Your task to perform on an android device: What's the weather going to be tomorrow? Image 0: 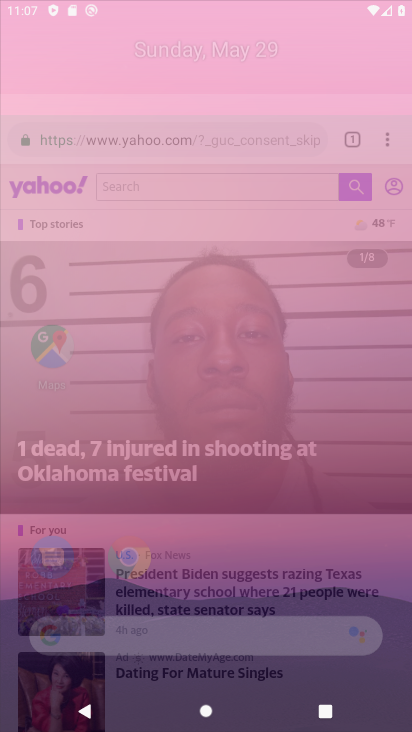
Step 0: drag from (167, 618) to (206, 436)
Your task to perform on an android device: What's the weather going to be tomorrow? Image 1: 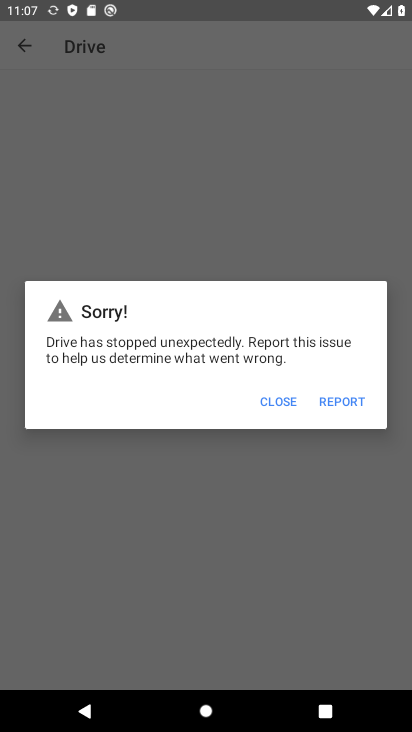
Step 1: press home button
Your task to perform on an android device: What's the weather going to be tomorrow? Image 2: 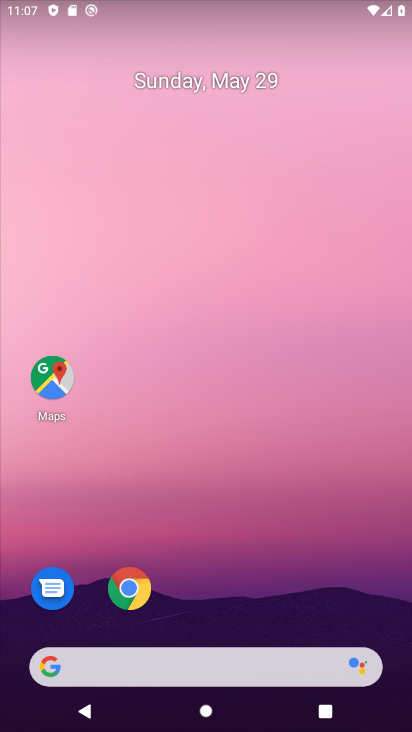
Step 2: drag from (0, 271) to (367, 279)
Your task to perform on an android device: What's the weather going to be tomorrow? Image 3: 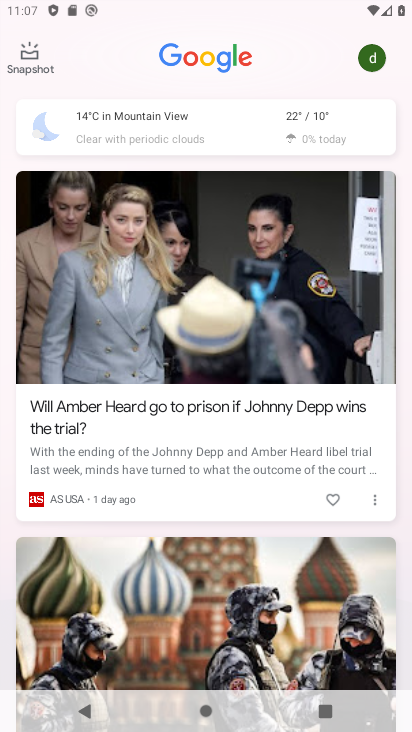
Step 3: click (305, 132)
Your task to perform on an android device: What's the weather going to be tomorrow? Image 4: 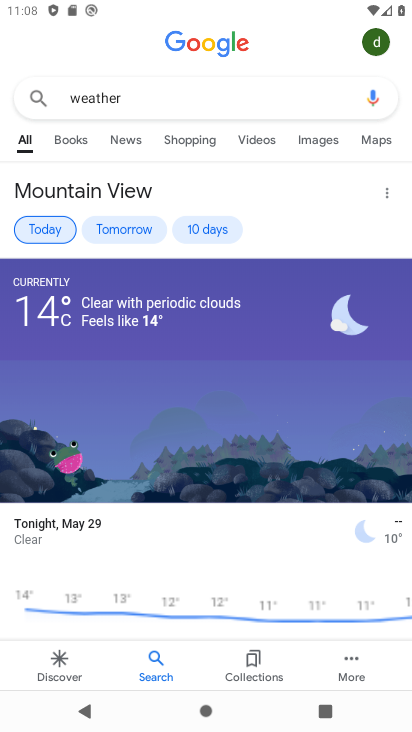
Step 4: click (118, 231)
Your task to perform on an android device: What's the weather going to be tomorrow? Image 5: 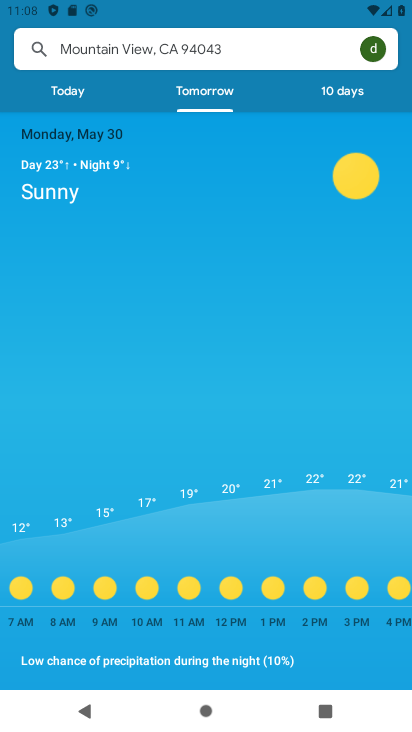
Step 5: task complete